Your task to perform on an android device: Open ESPN.com Image 0: 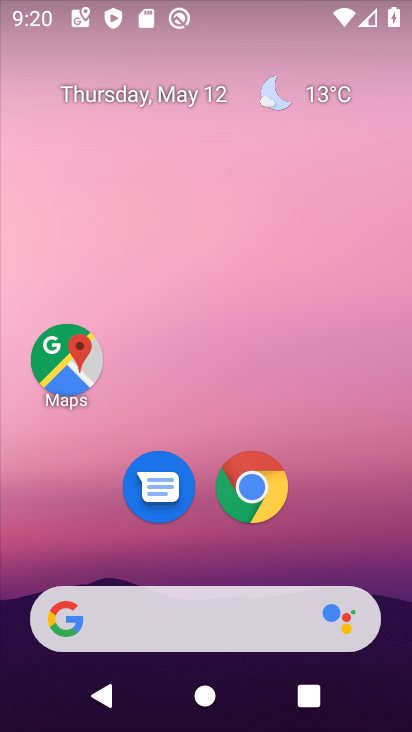
Step 0: click (220, 610)
Your task to perform on an android device: Open ESPN.com Image 1: 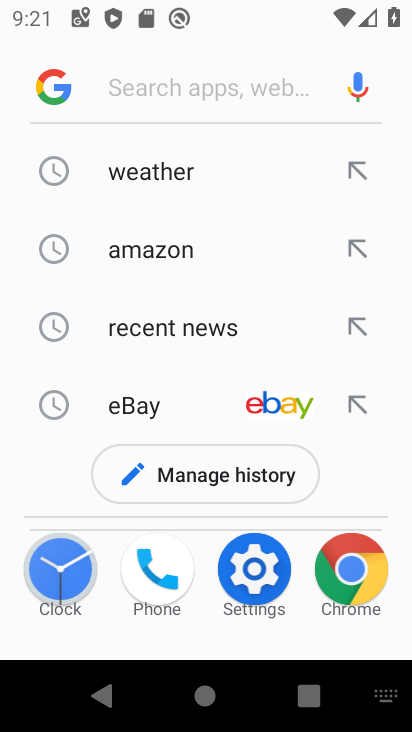
Step 1: type "espn"
Your task to perform on an android device: Open ESPN.com Image 2: 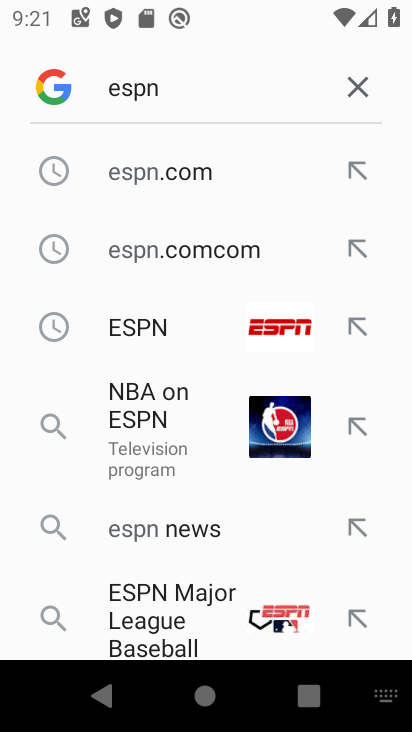
Step 2: click (212, 160)
Your task to perform on an android device: Open ESPN.com Image 3: 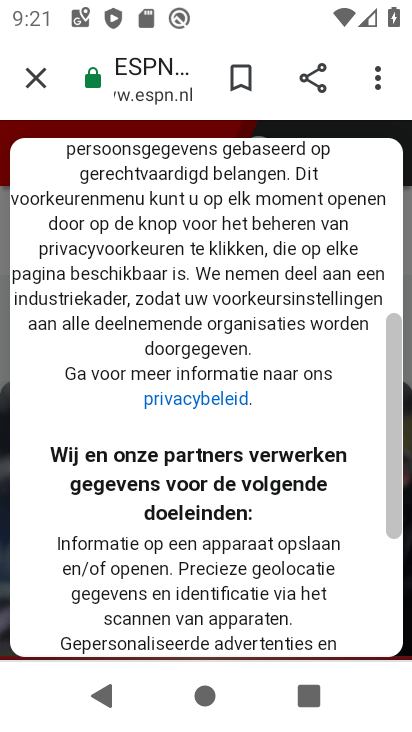
Step 3: task complete